Your task to perform on an android device: check out phone information Image 0: 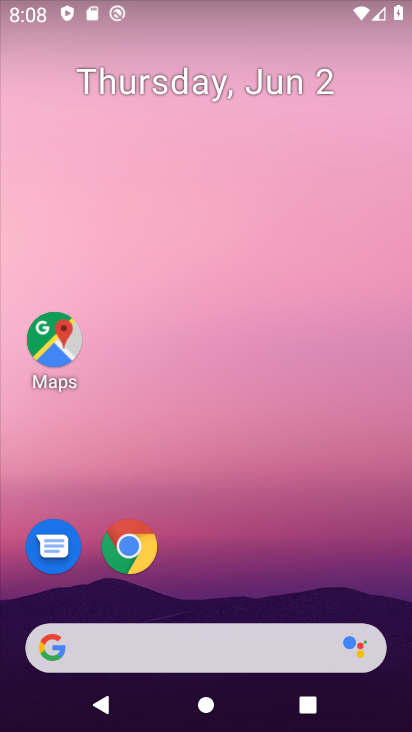
Step 0: drag from (277, 723) to (242, 301)
Your task to perform on an android device: check out phone information Image 1: 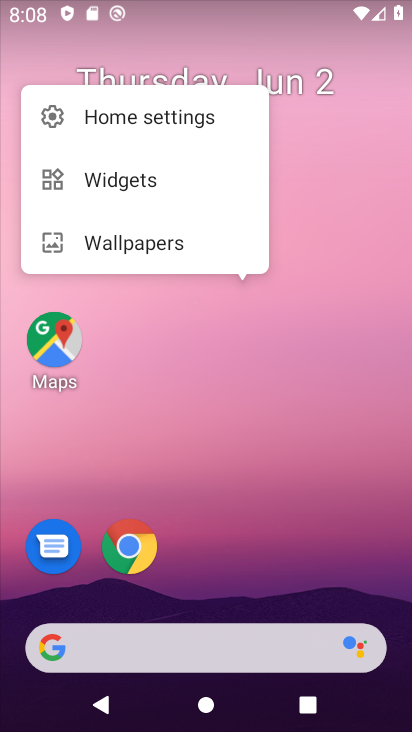
Step 1: drag from (261, 671) to (252, 169)
Your task to perform on an android device: check out phone information Image 2: 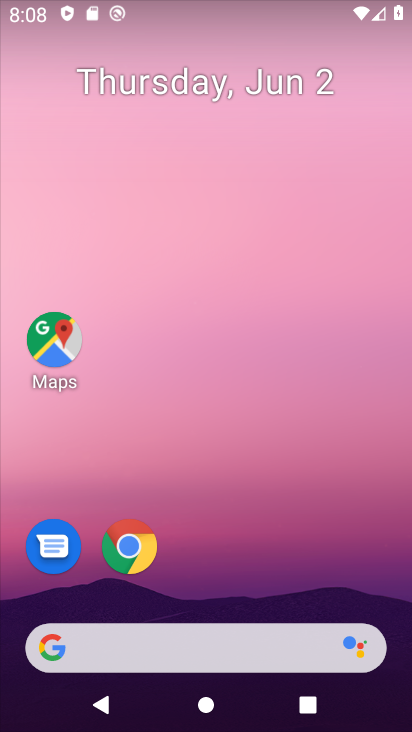
Step 2: drag from (278, 656) to (215, 90)
Your task to perform on an android device: check out phone information Image 3: 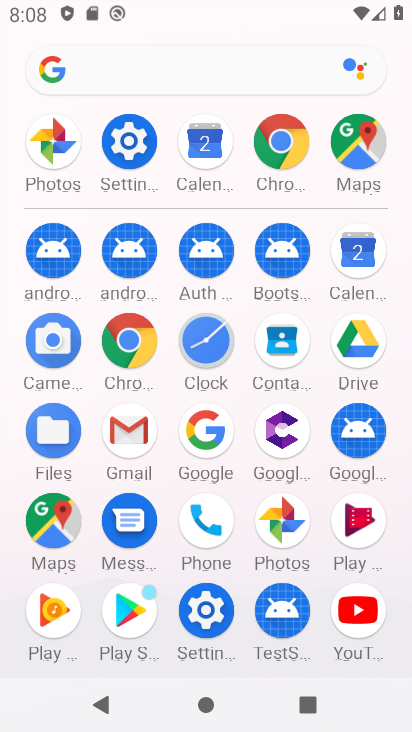
Step 3: click (200, 618)
Your task to perform on an android device: check out phone information Image 4: 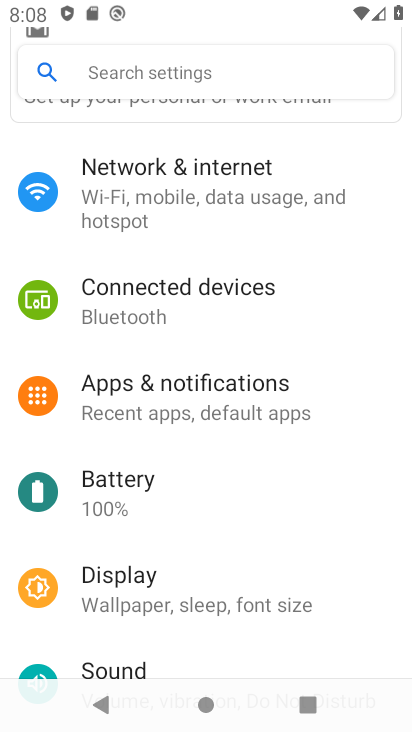
Step 4: drag from (213, 578) to (154, 166)
Your task to perform on an android device: check out phone information Image 5: 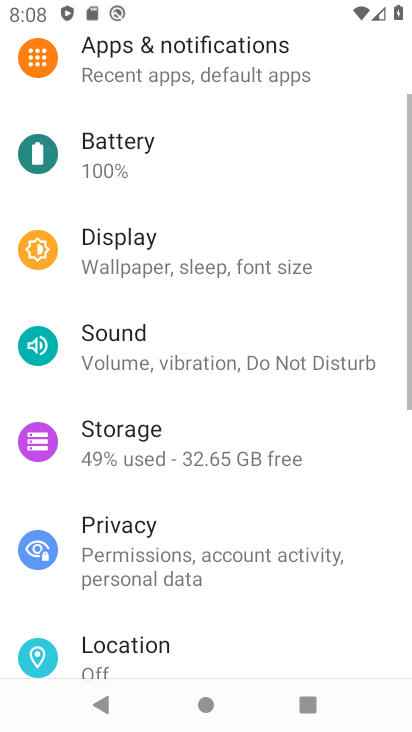
Step 5: drag from (175, 394) to (171, 87)
Your task to perform on an android device: check out phone information Image 6: 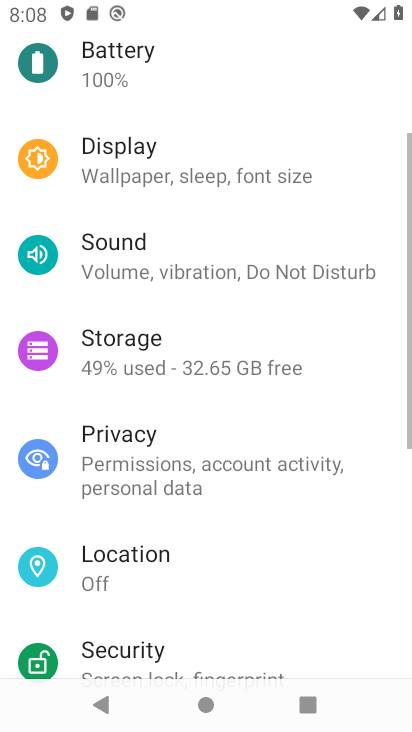
Step 6: drag from (178, 385) to (159, 144)
Your task to perform on an android device: check out phone information Image 7: 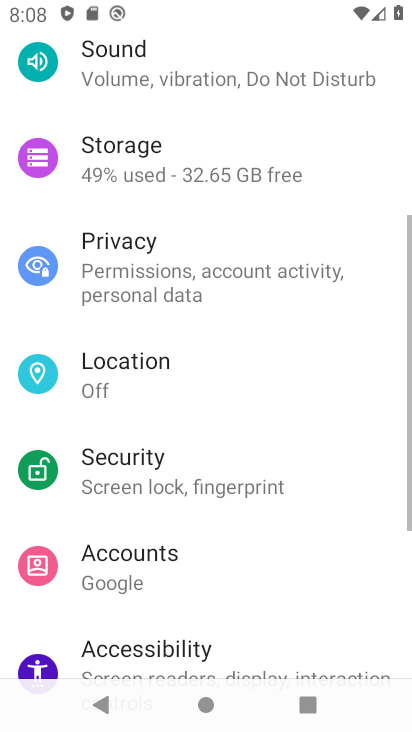
Step 7: drag from (167, 438) to (187, 212)
Your task to perform on an android device: check out phone information Image 8: 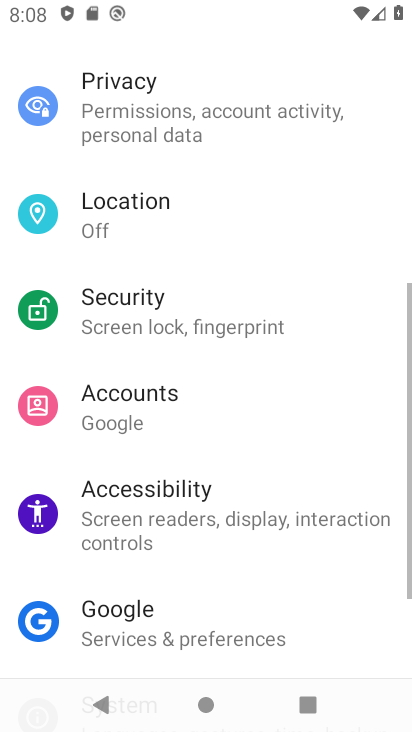
Step 8: drag from (228, 432) to (240, 267)
Your task to perform on an android device: check out phone information Image 9: 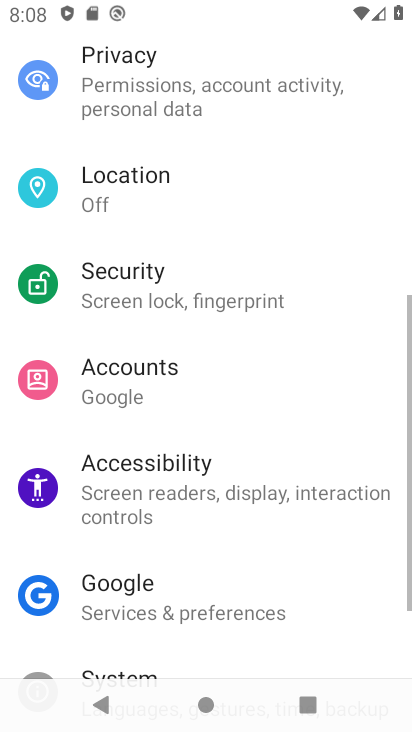
Step 9: drag from (246, 315) to (246, 227)
Your task to perform on an android device: check out phone information Image 10: 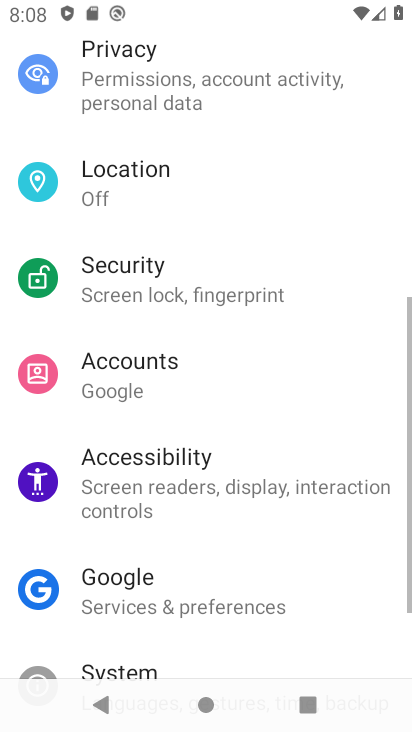
Step 10: drag from (221, 486) to (206, 263)
Your task to perform on an android device: check out phone information Image 11: 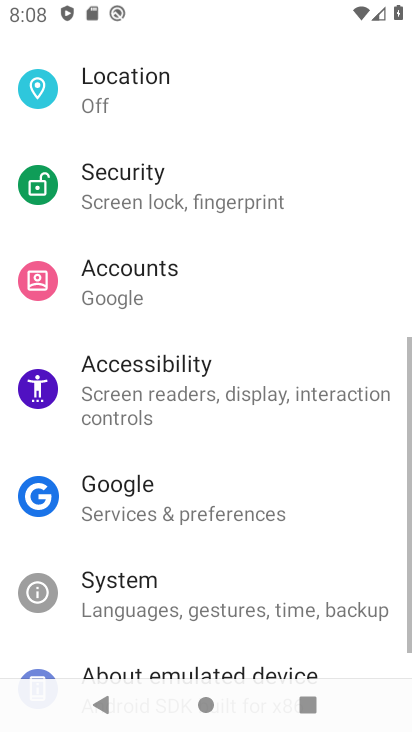
Step 11: drag from (193, 443) to (165, 234)
Your task to perform on an android device: check out phone information Image 12: 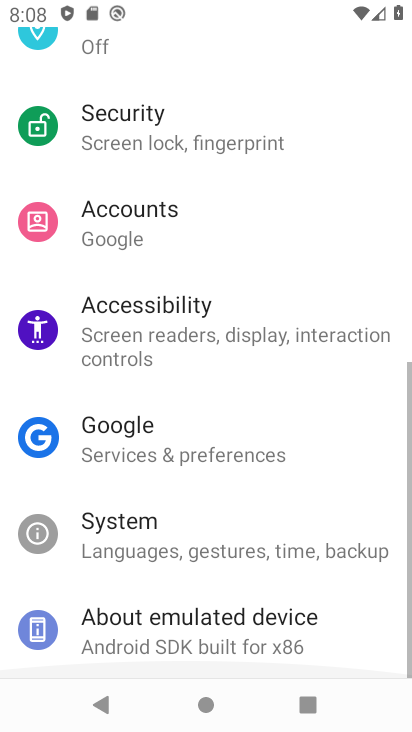
Step 12: drag from (211, 426) to (175, 198)
Your task to perform on an android device: check out phone information Image 13: 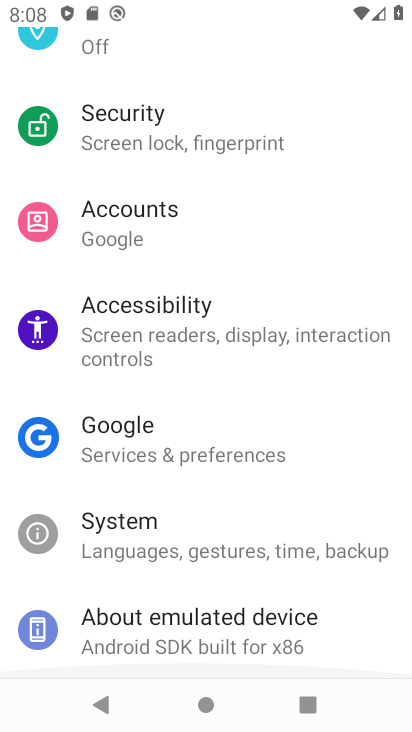
Step 13: drag from (124, 474) to (90, 242)
Your task to perform on an android device: check out phone information Image 14: 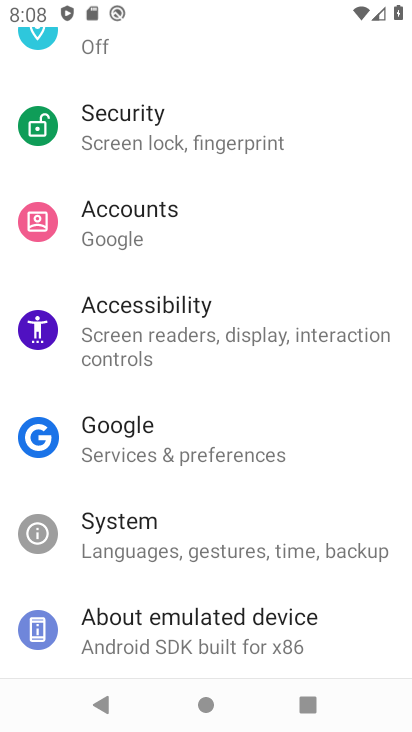
Step 14: click (165, 625)
Your task to perform on an android device: check out phone information Image 15: 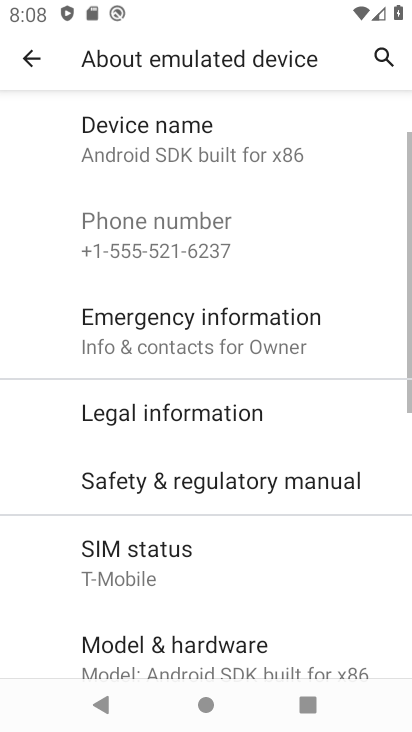
Step 15: task complete